Your task to perform on an android device: open app "YouTube Kids" Image 0: 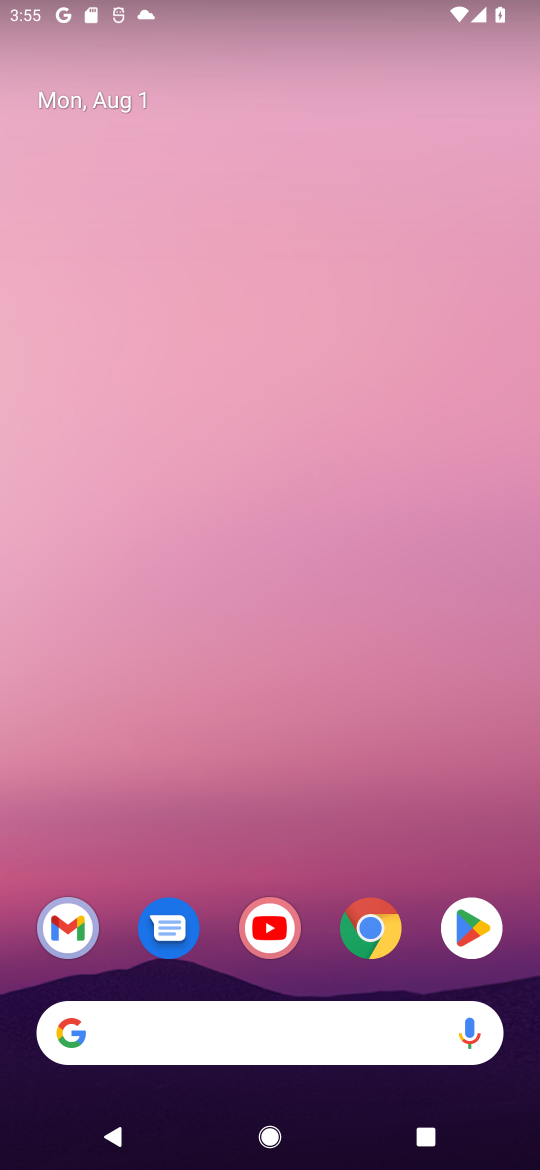
Step 0: press home button
Your task to perform on an android device: open app "YouTube Kids" Image 1: 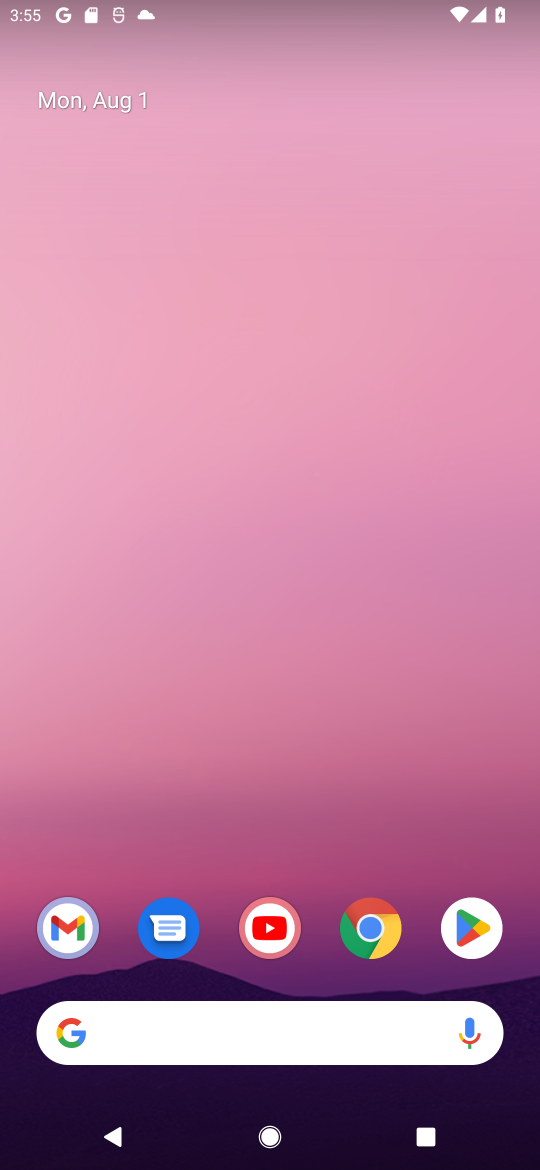
Step 1: click (474, 924)
Your task to perform on an android device: open app "YouTube Kids" Image 2: 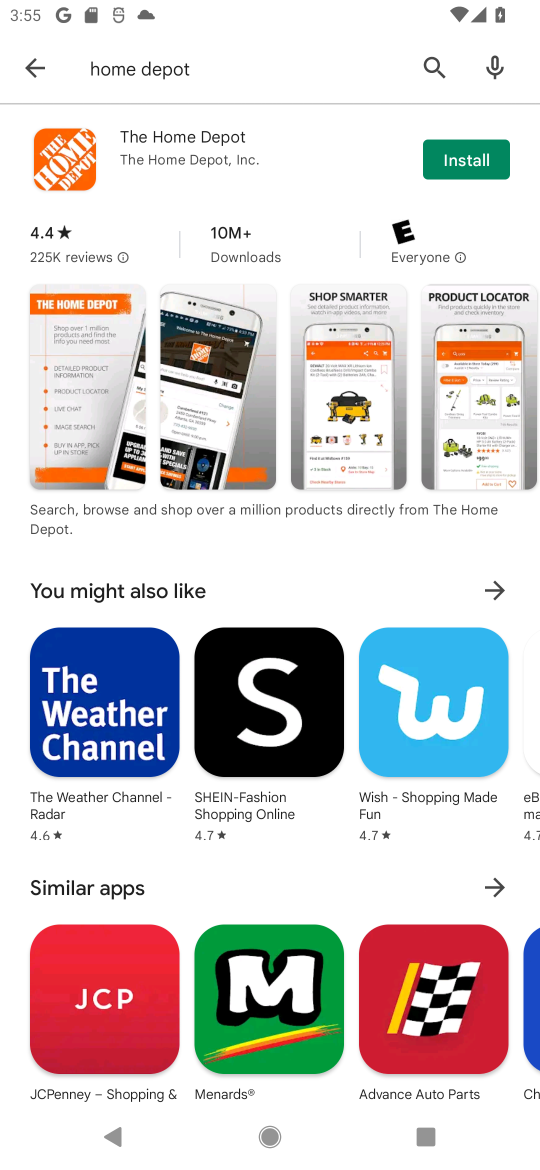
Step 2: click (415, 58)
Your task to perform on an android device: open app "YouTube Kids" Image 3: 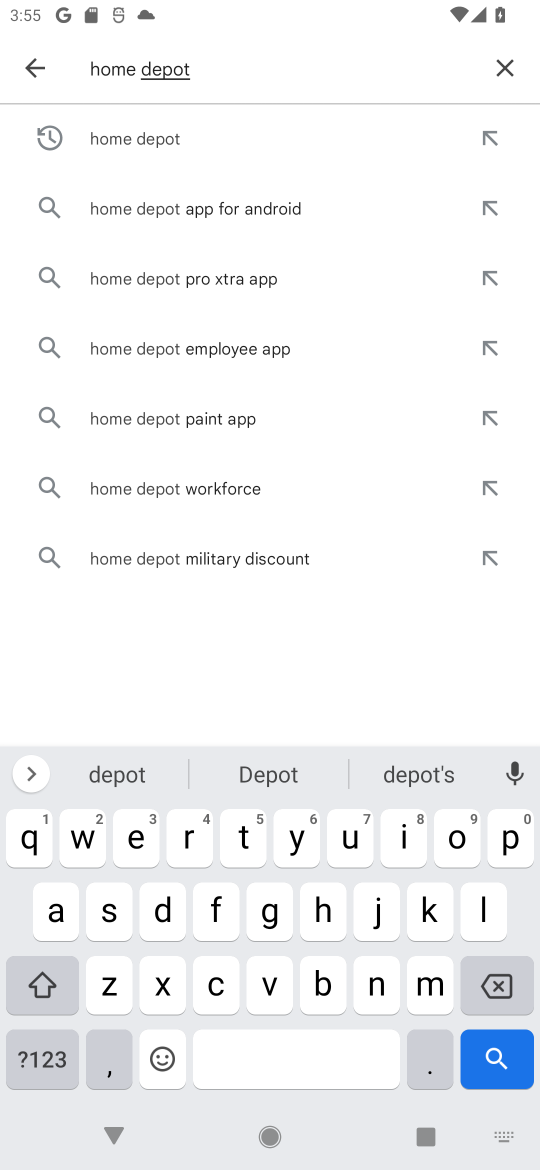
Step 3: click (500, 68)
Your task to perform on an android device: open app "YouTube Kids" Image 4: 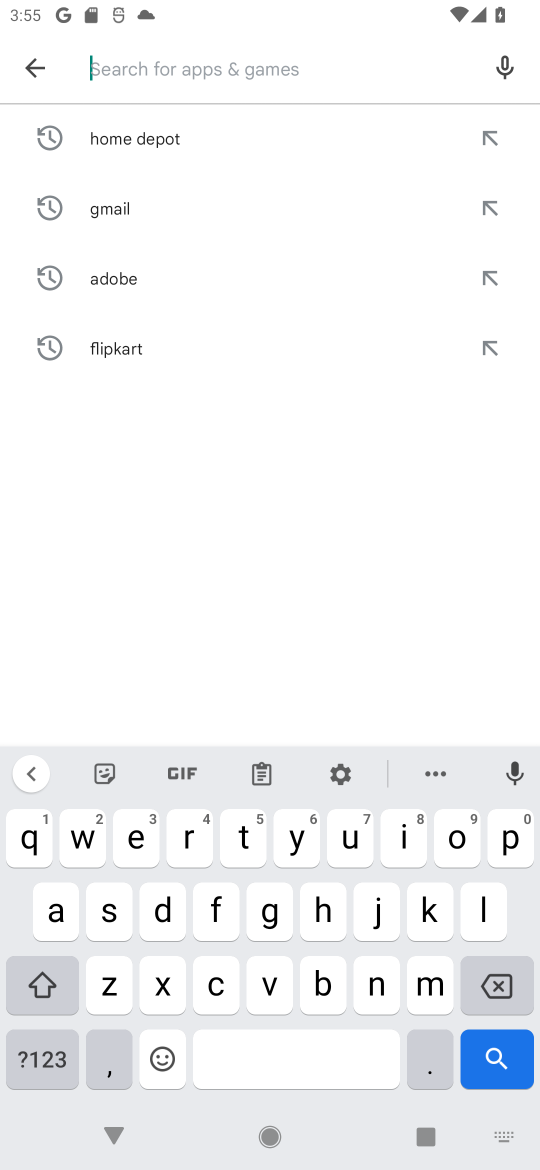
Step 4: click (297, 849)
Your task to perform on an android device: open app "YouTube Kids" Image 5: 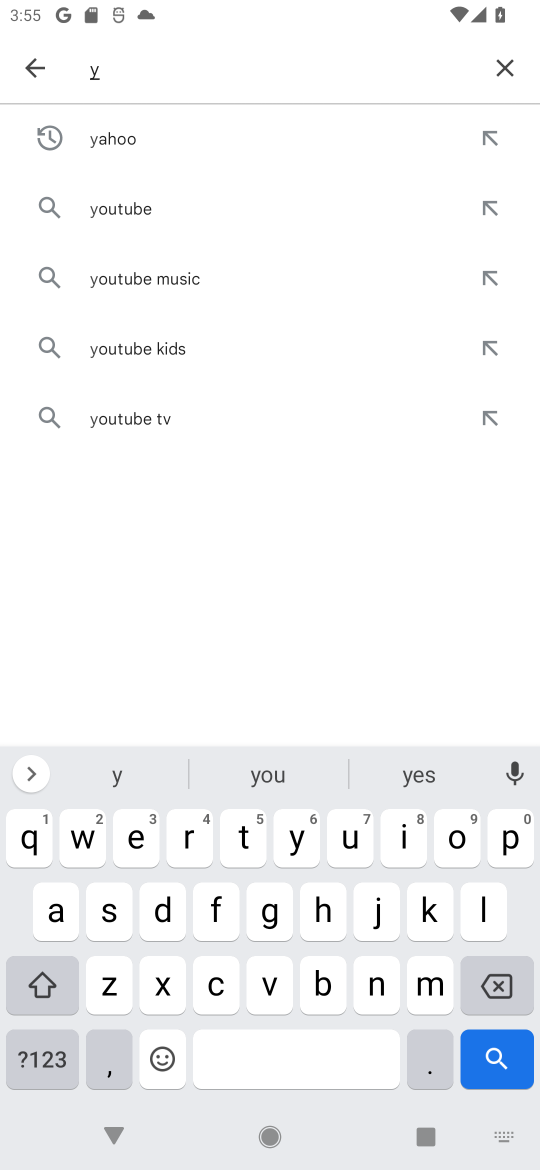
Step 5: click (458, 840)
Your task to perform on an android device: open app "YouTube Kids" Image 6: 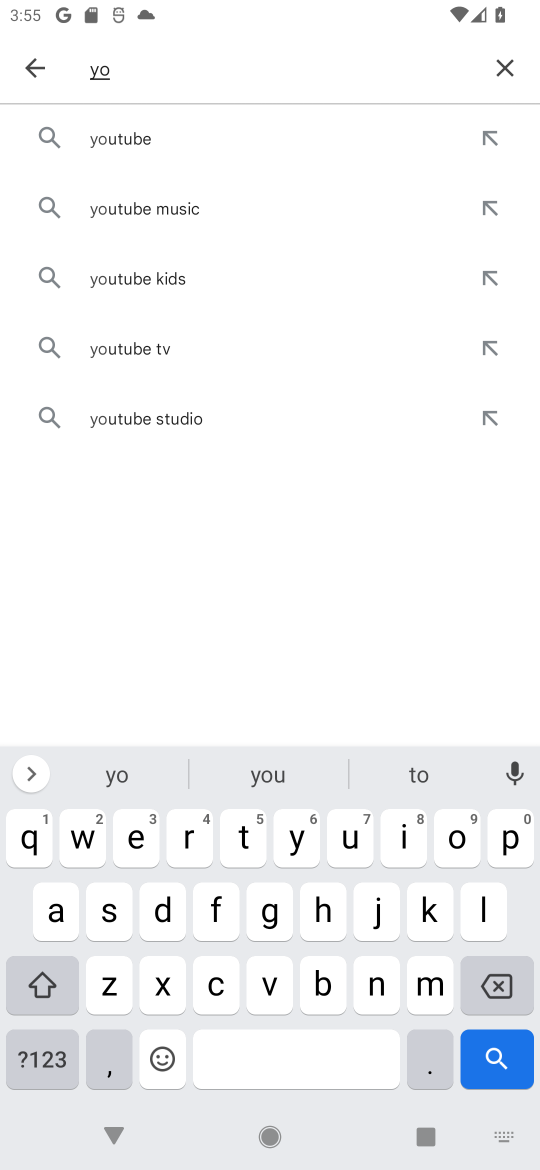
Step 6: click (352, 835)
Your task to perform on an android device: open app "YouTube Kids" Image 7: 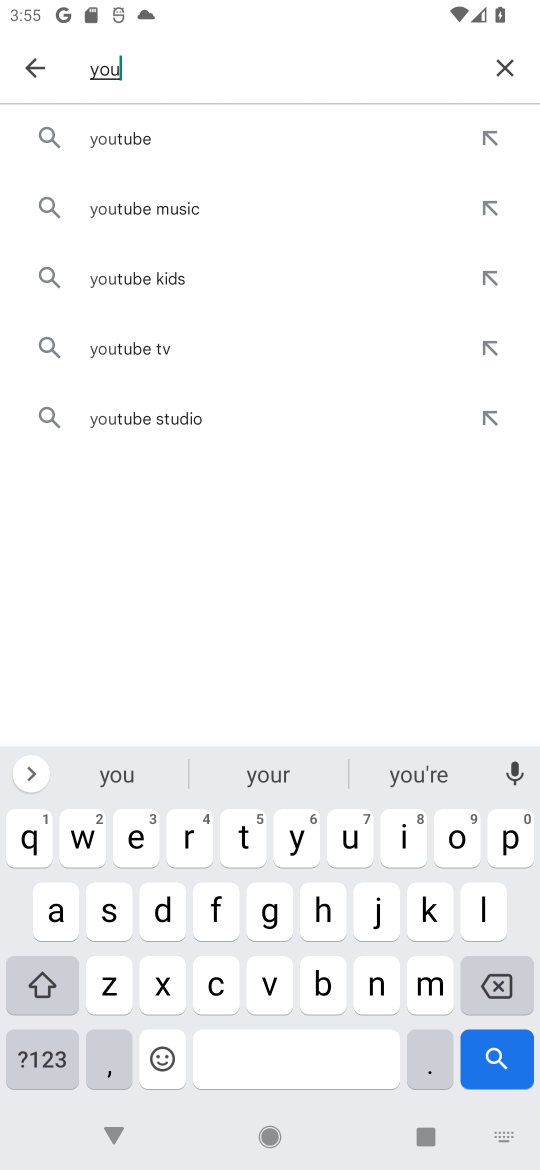
Step 7: click (236, 830)
Your task to perform on an android device: open app "YouTube Kids" Image 8: 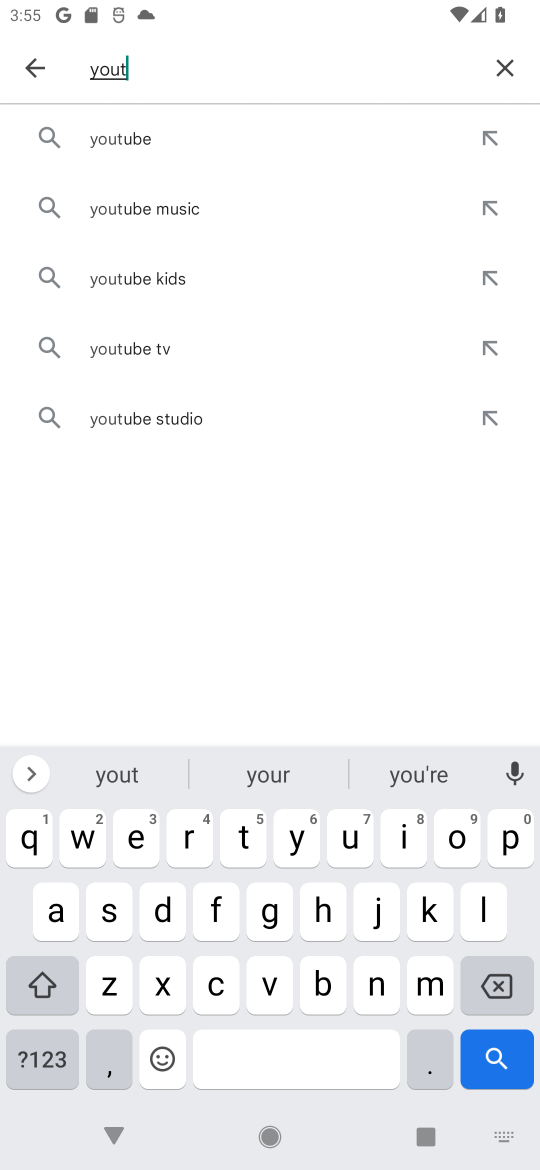
Step 8: click (346, 841)
Your task to perform on an android device: open app "YouTube Kids" Image 9: 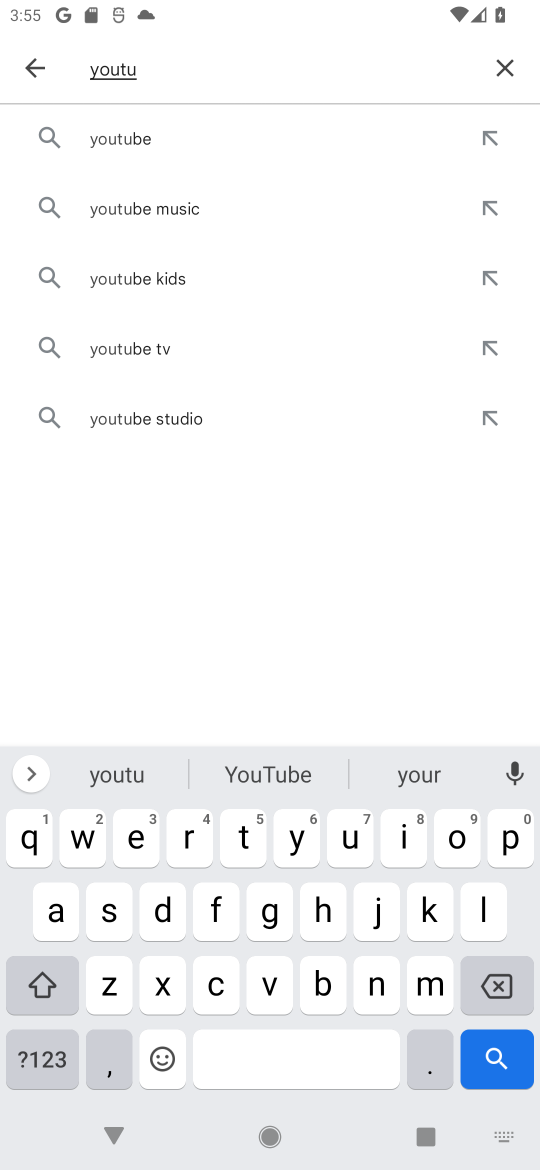
Step 9: click (259, 775)
Your task to perform on an android device: open app "YouTube Kids" Image 10: 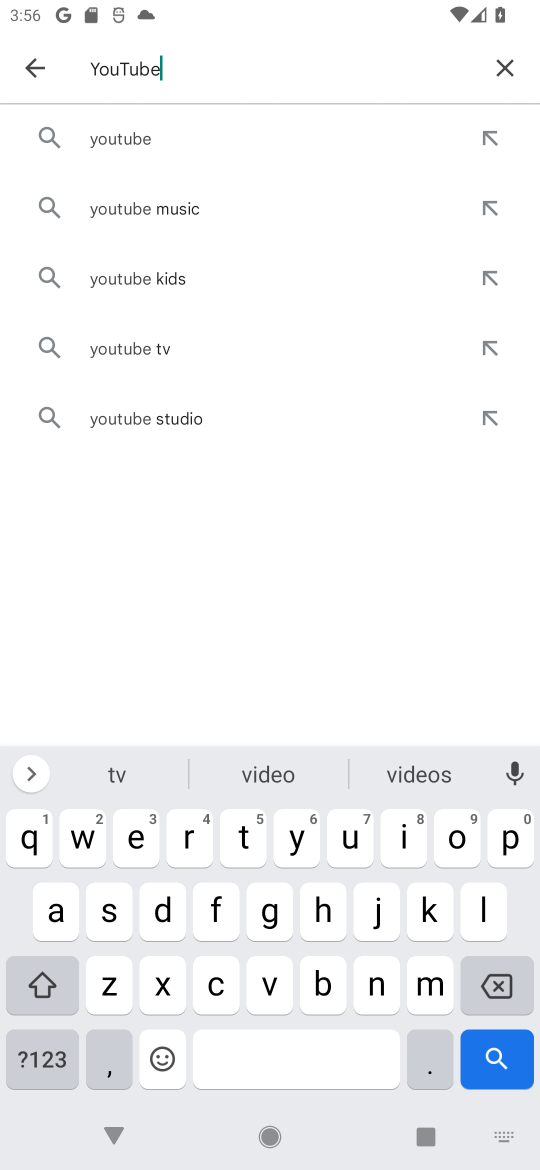
Step 10: click (173, 278)
Your task to perform on an android device: open app "YouTube Kids" Image 11: 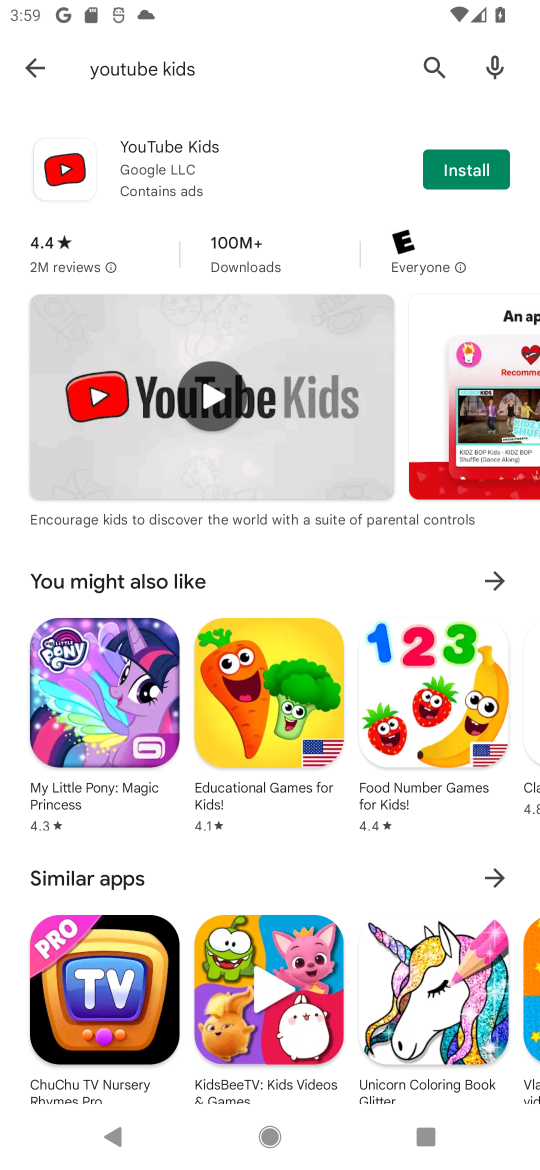
Step 11: task complete